Your task to perform on an android device: turn off improve location accuracy Image 0: 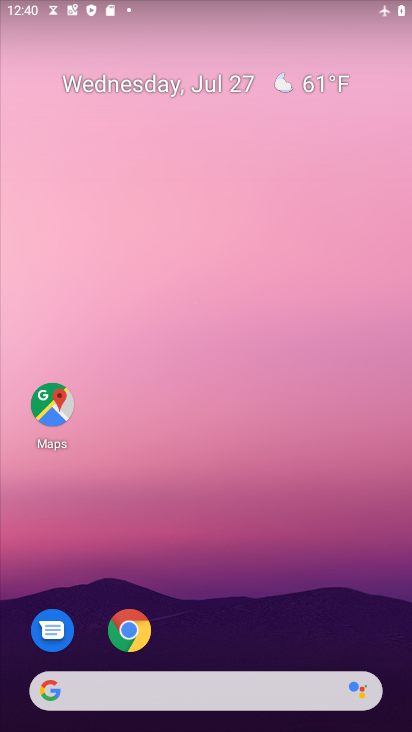
Step 0: click (251, 472)
Your task to perform on an android device: turn off improve location accuracy Image 1: 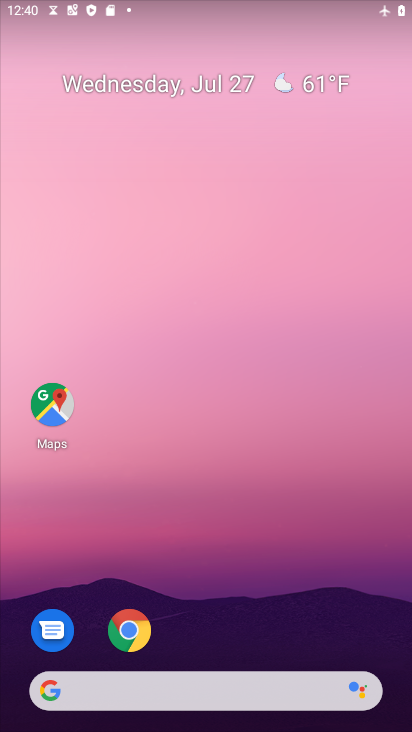
Step 1: drag from (190, 686) to (274, 336)
Your task to perform on an android device: turn off improve location accuracy Image 2: 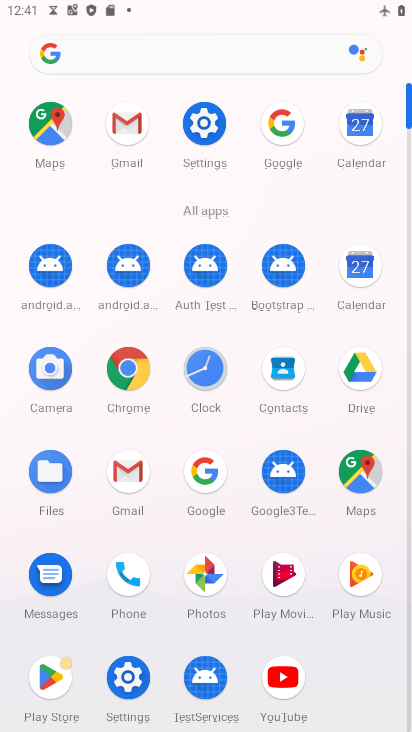
Step 2: click (202, 117)
Your task to perform on an android device: turn off improve location accuracy Image 3: 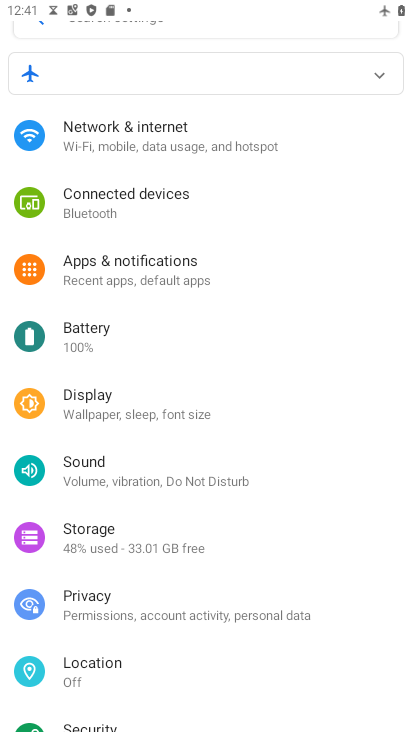
Step 3: click (111, 667)
Your task to perform on an android device: turn off improve location accuracy Image 4: 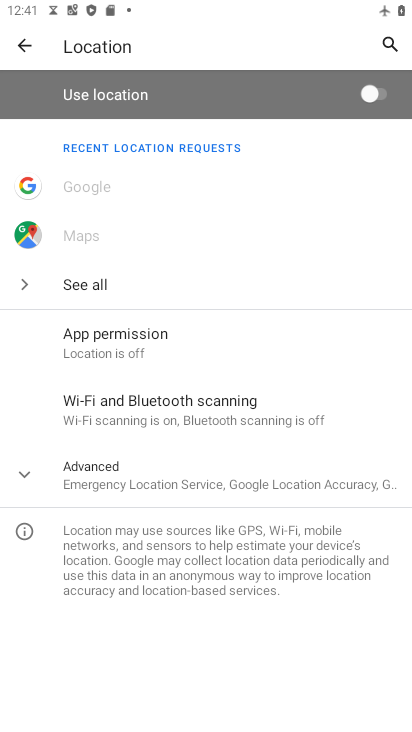
Step 4: click (96, 477)
Your task to perform on an android device: turn off improve location accuracy Image 5: 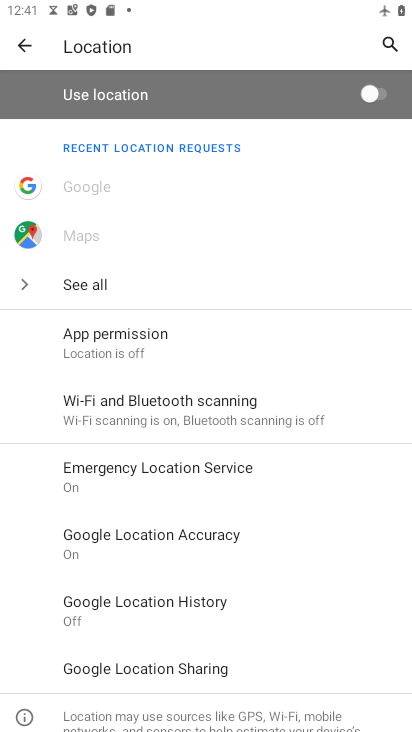
Step 5: click (126, 539)
Your task to perform on an android device: turn off improve location accuracy Image 6: 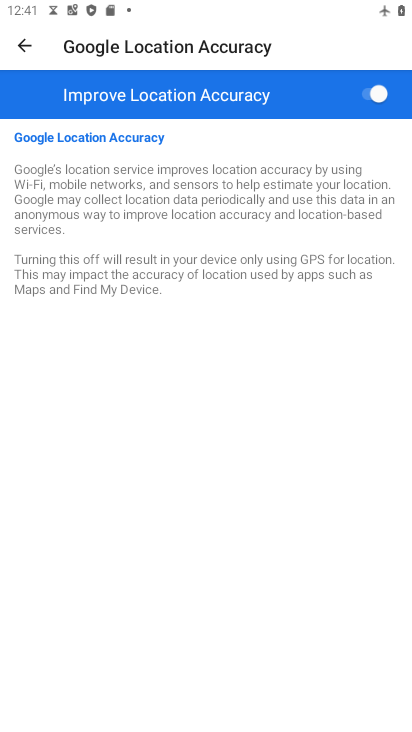
Step 6: click (363, 94)
Your task to perform on an android device: turn off improve location accuracy Image 7: 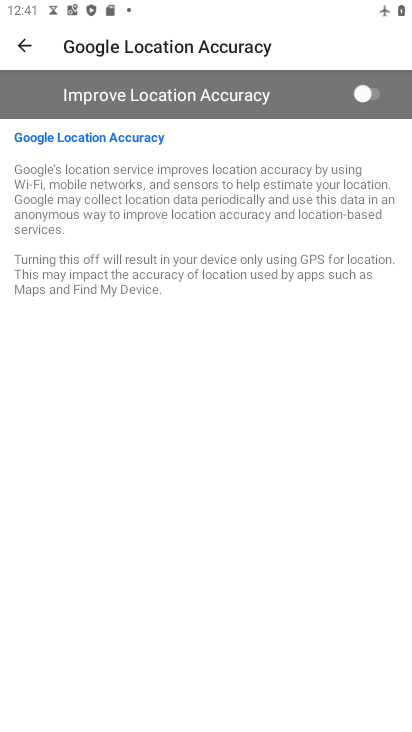
Step 7: task complete